Your task to perform on an android device: Open Chrome and go to the settings page Image 0: 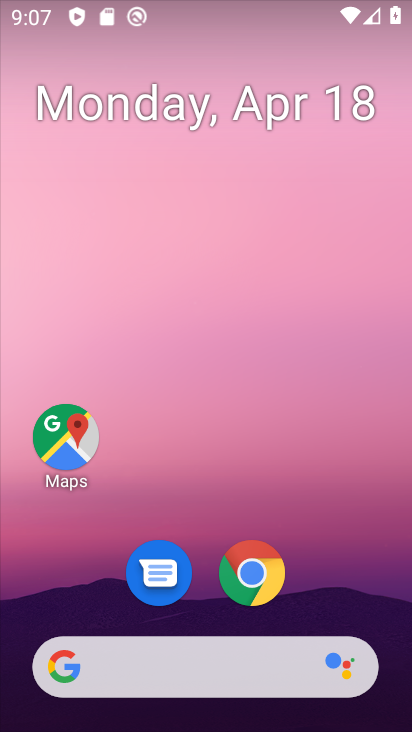
Step 0: click (250, 570)
Your task to perform on an android device: Open Chrome and go to the settings page Image 1: 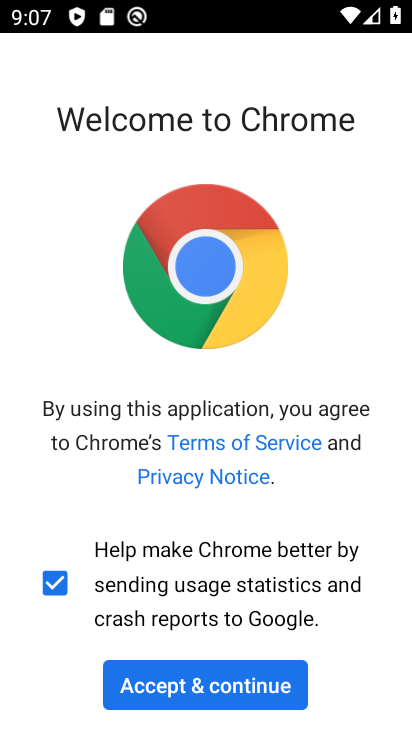
Step 1: click (185, 683)
Your task to perform on an android device: Open Chrome and go to the settings page Image 2: 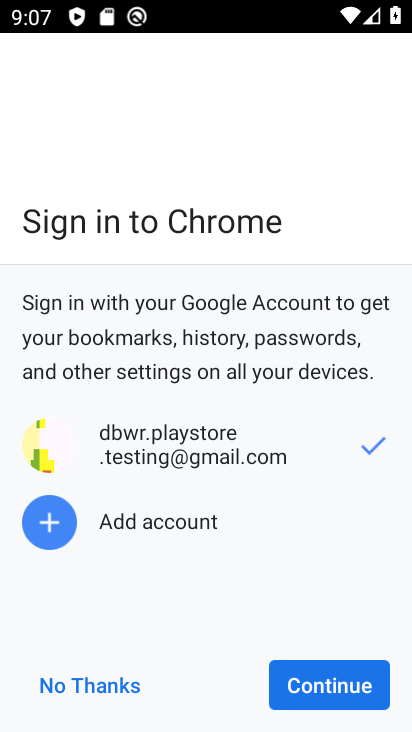
Step 2: click (323, 682)
Your task to perform on an android device: Open Chrome and go to the settings page Image 3: 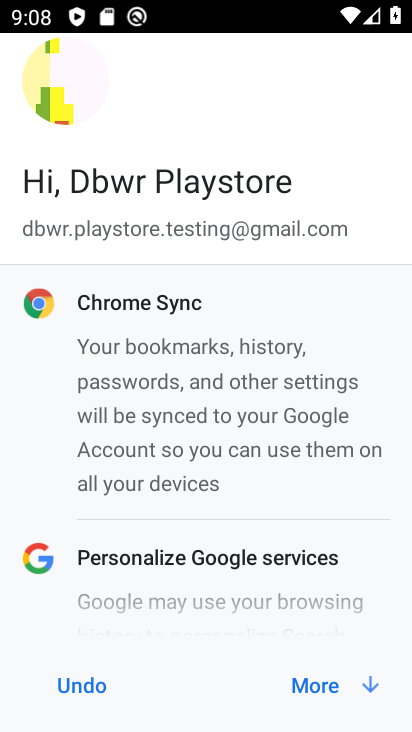
Step 3: click (323, 682)
Your task to perform on an android device: Open Chrome and go to the settings page Image 4: 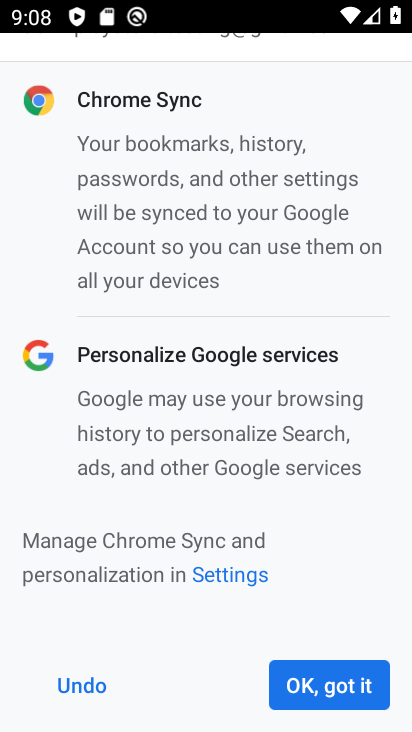
Step 4: click (323, 682)
Your task to perform on an android device: Open Chrome and go to the settings page Image 5: 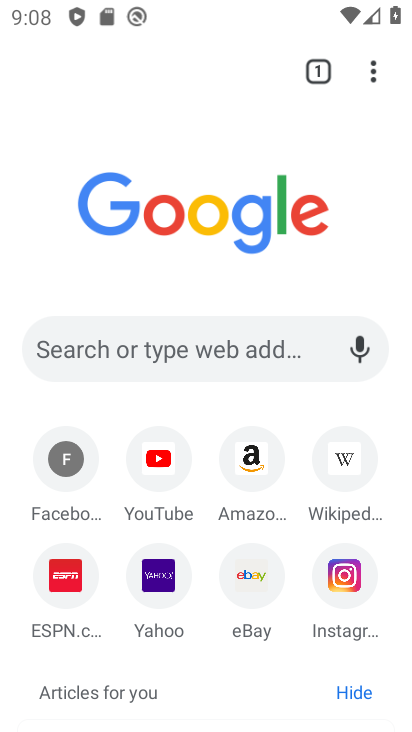
Step 5: click (370, 69)
Your task to perform on an android device: Open Chrome and go to the settings page Image 6: 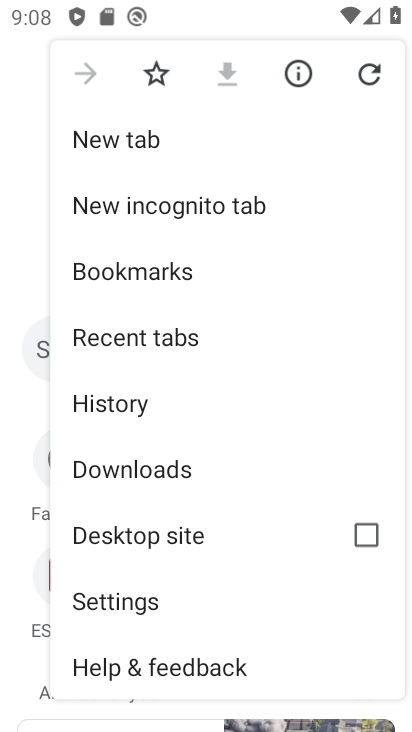
Step 6: click (111, 606)
Your task to perform on an android device: Open Chrome and go to the settings page Image 7: 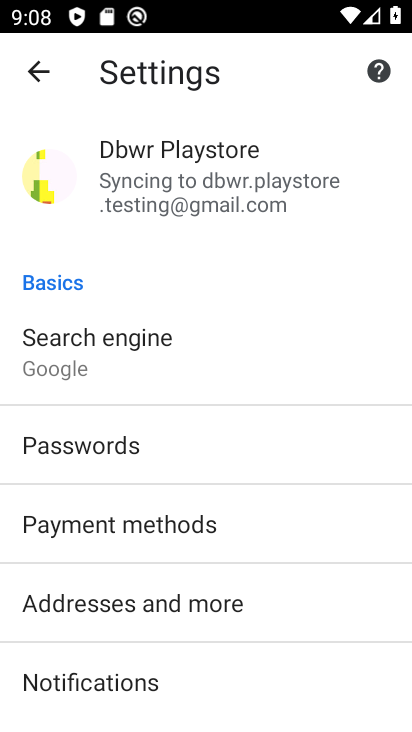
Step 7: task complete